Your task to perform on an android device: turn on location history Image 0: 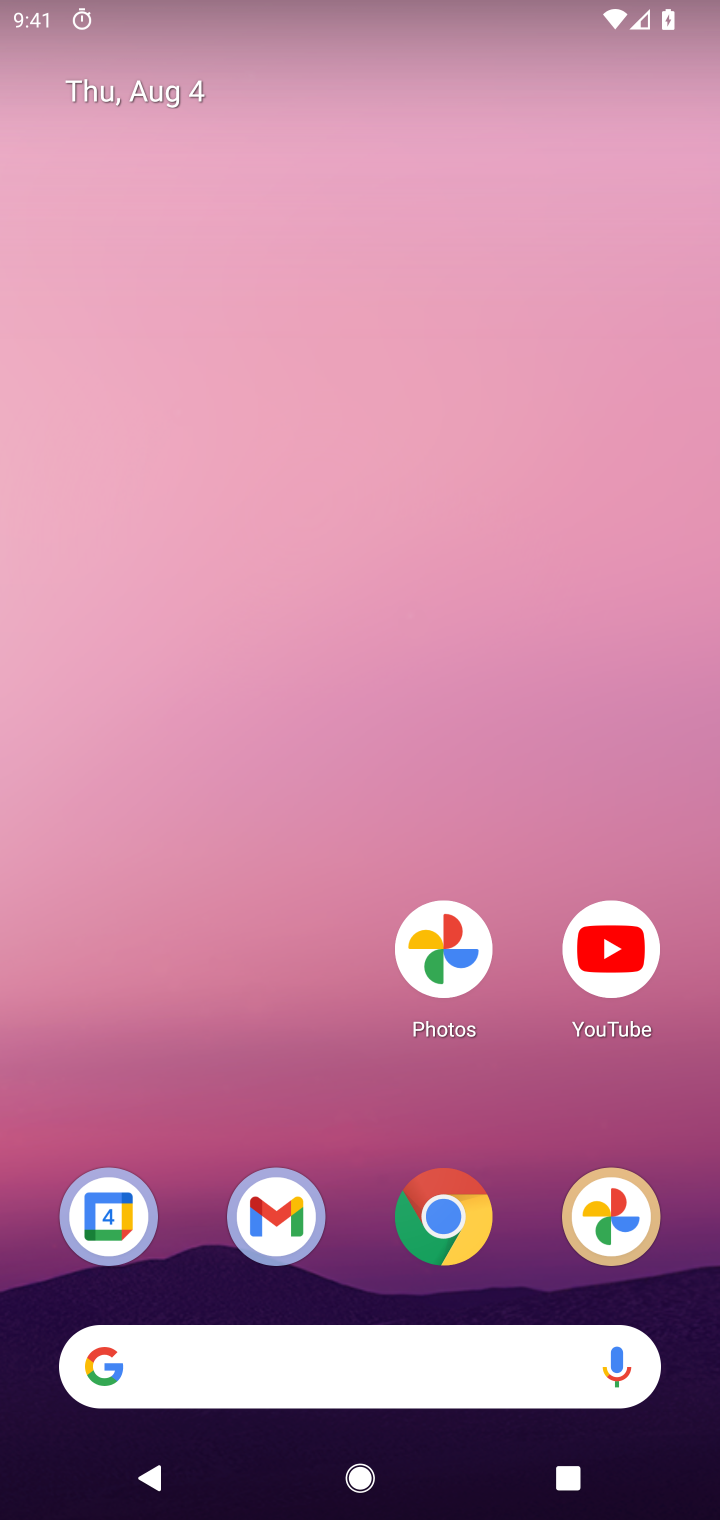
Step 0: drag from (325, 1004) to (285, 154)
Your task to perform on an android device: turn on location history Image 1: 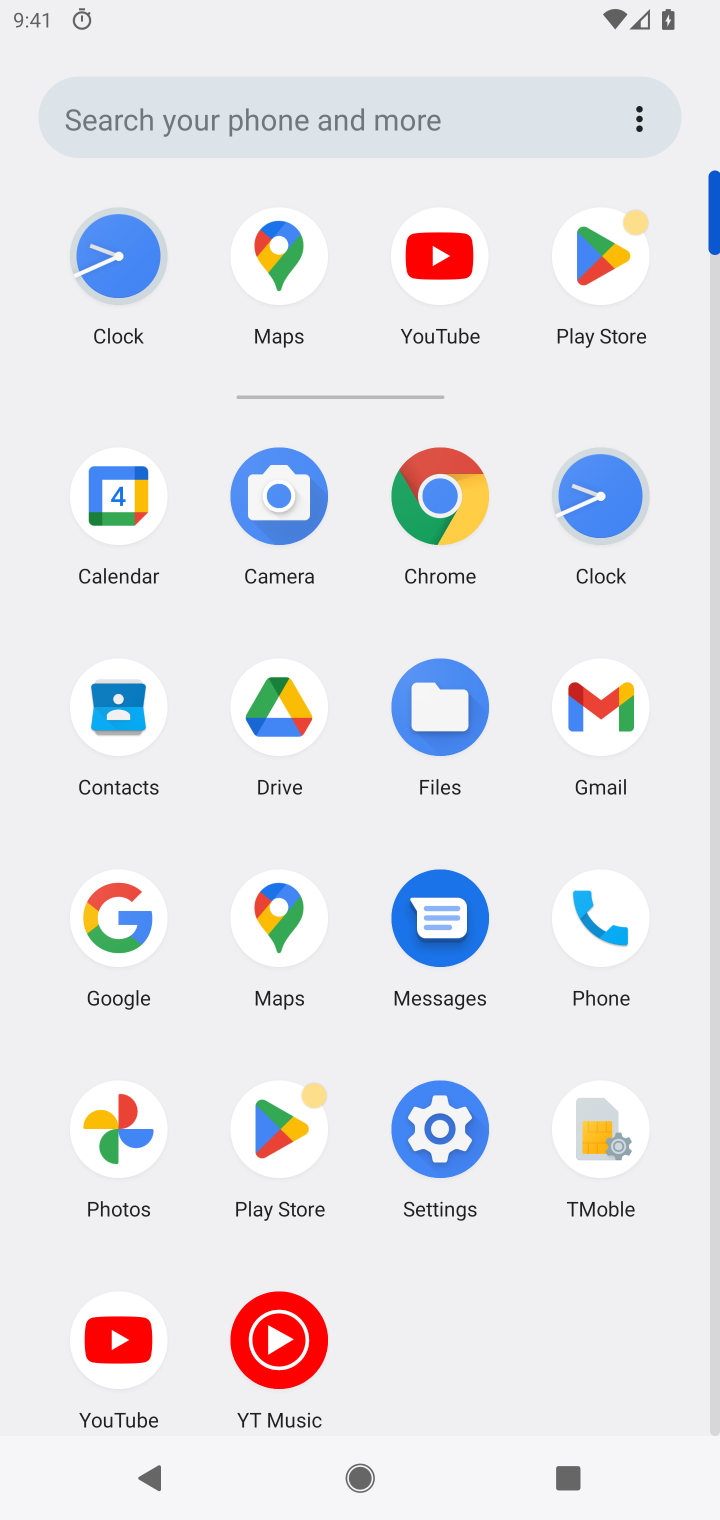
Step 1: click (450, 1142)
Your task to perform on an android device: turn on location history Image 2: 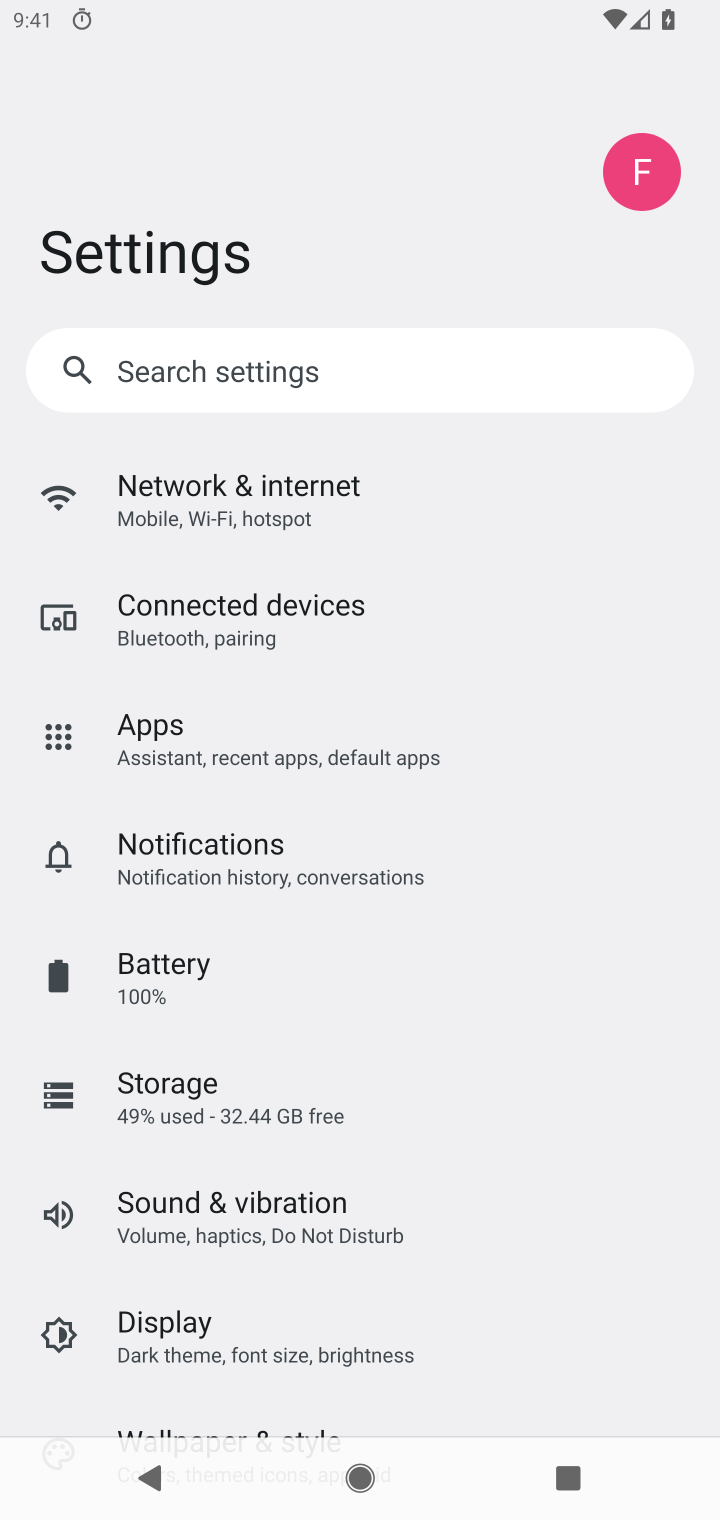
Step 2: drag from (222, 1369) to (233, 660)
Your task to perform on an android device: turn on location history Image 3: 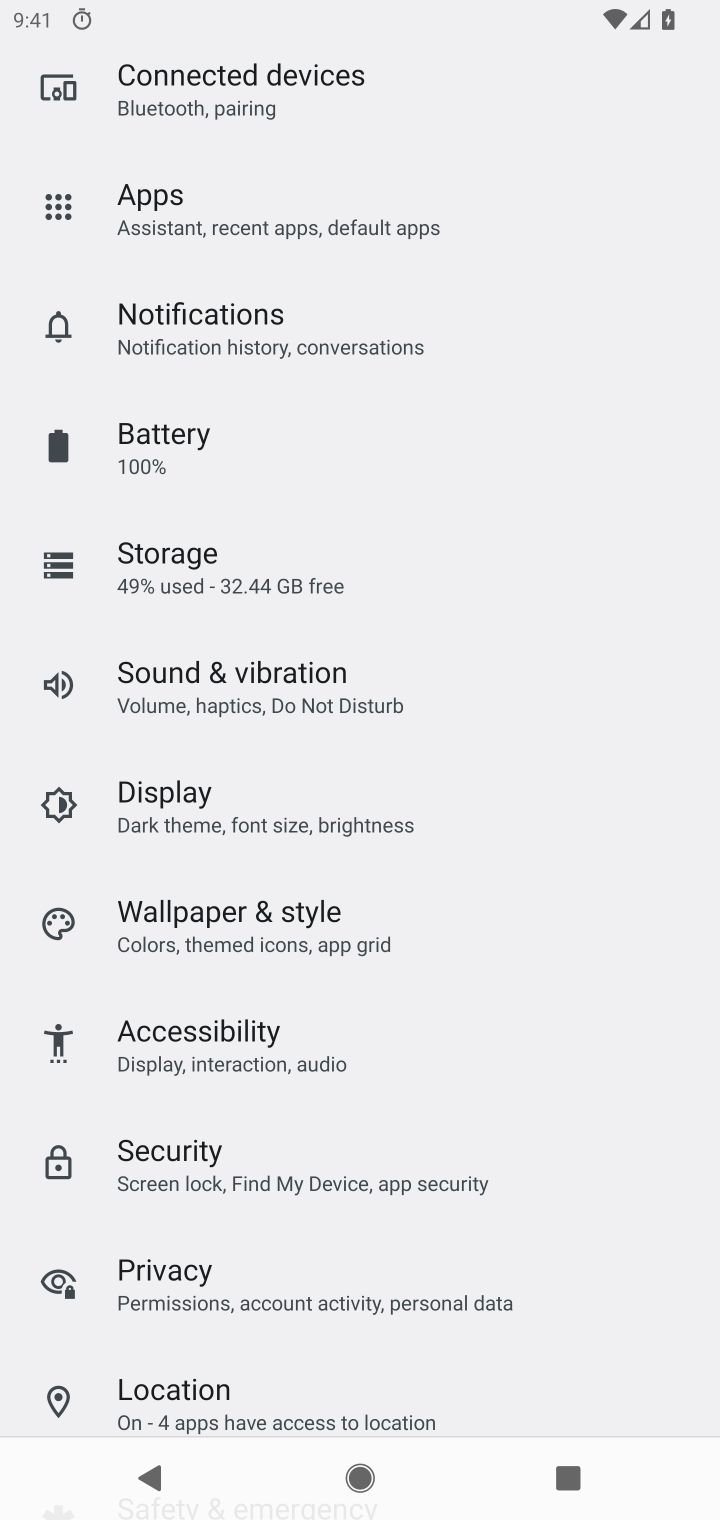
Step 3: click (190, 1385)
Your task to perform on an android device: turn on location history Image 4: 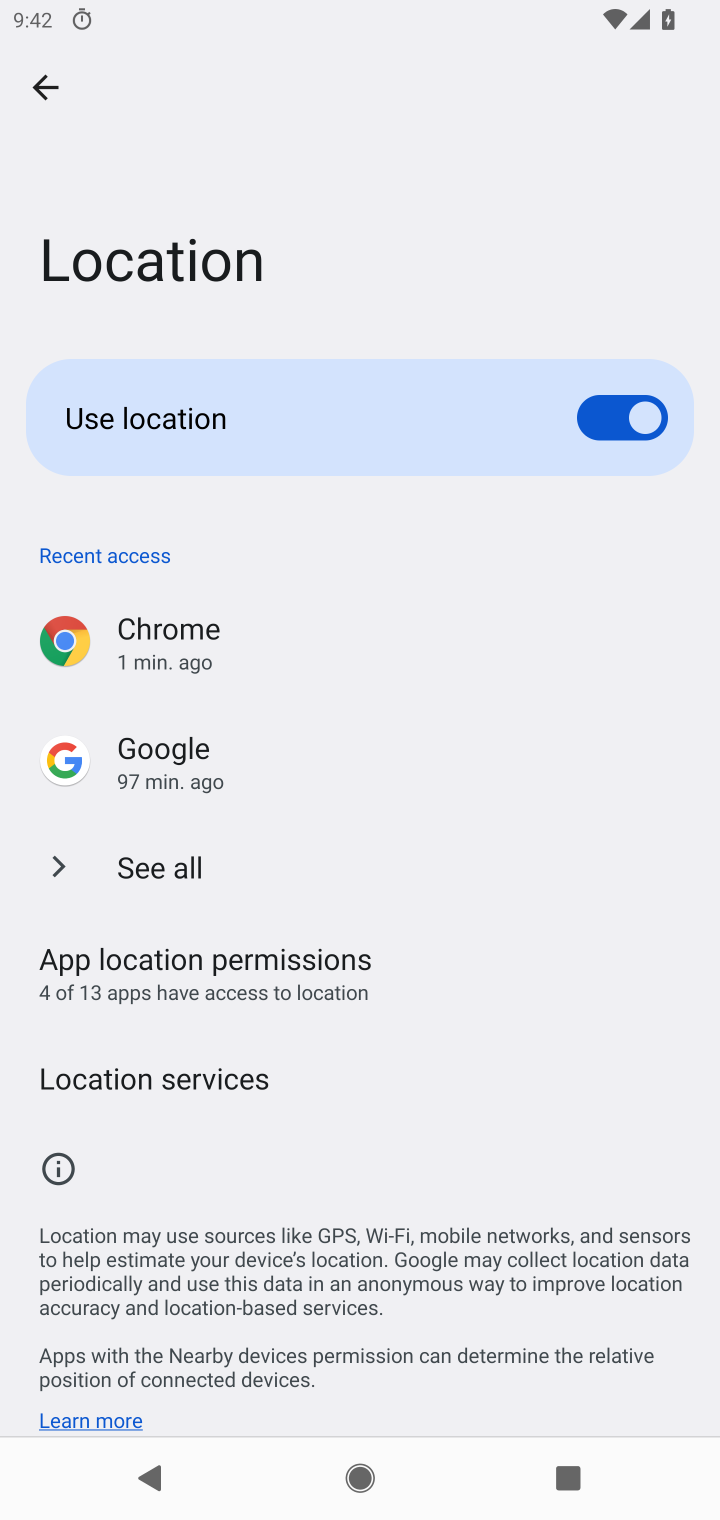
Step 4: click (151, 1077)
Your task to perform on an android device: turn on location history Image 5: 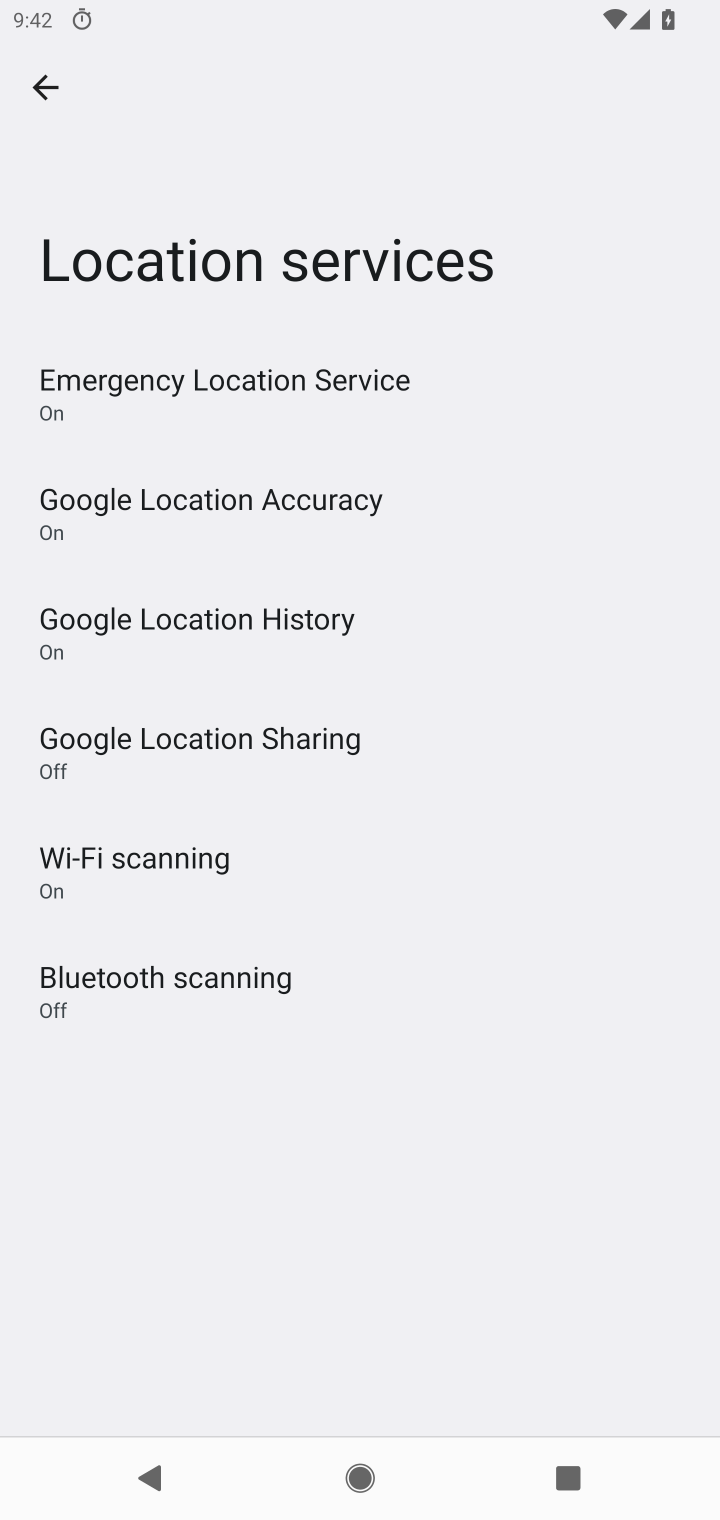
Step 5: click (246, 617)
Your task to perform on an android device: turn on location history Image 6: 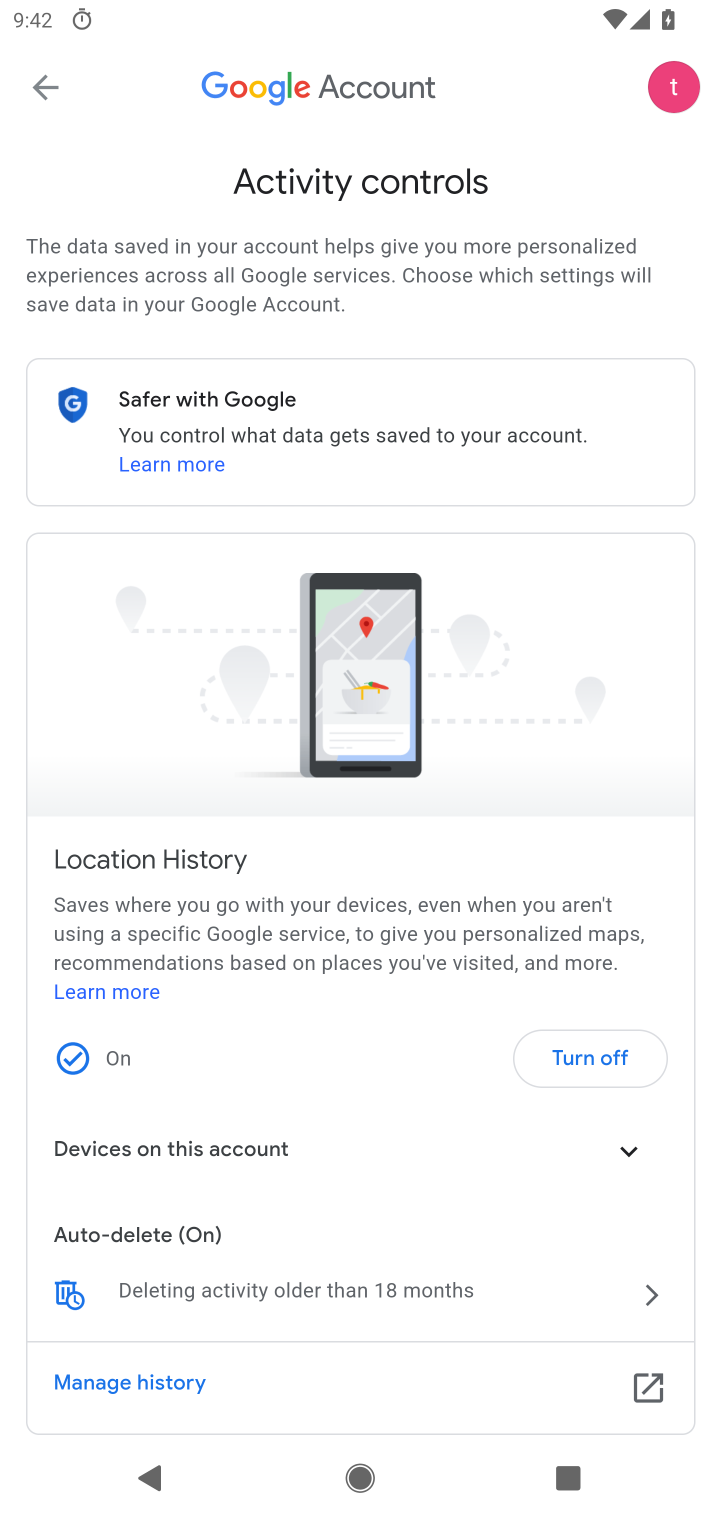
Step 6: task complete